Your task to perform on an android device: What is the recent news? Image 0: 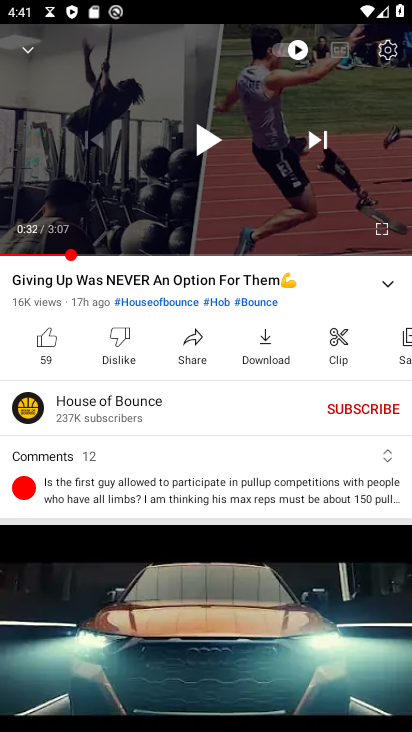
Step 0: press home button
Your task to perform on an android device: What is the recent news? Image 1: 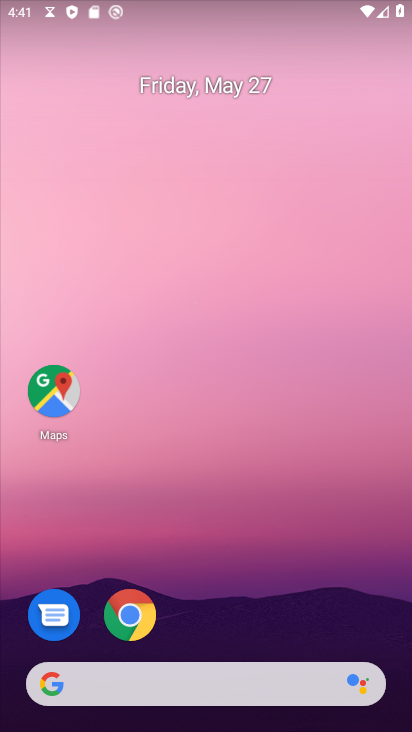
Step 1: drag from (239, 529) to (159, 4)
Your task to perform on an android device: What is the recent news? Image 2: 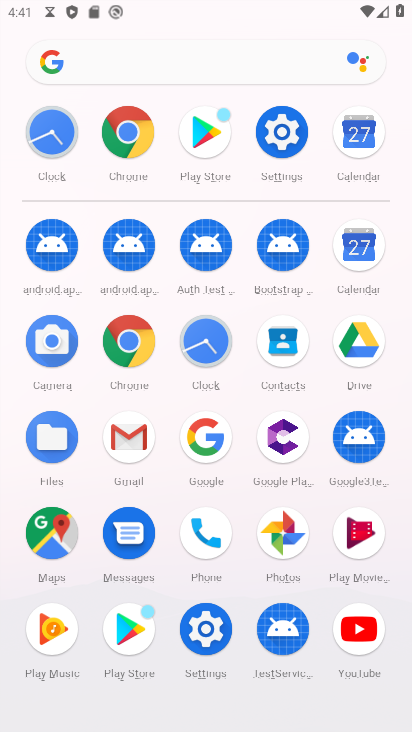
Step 2: click (202, 432)
Your task to perform on an android device: What is the recent news? Image 3: 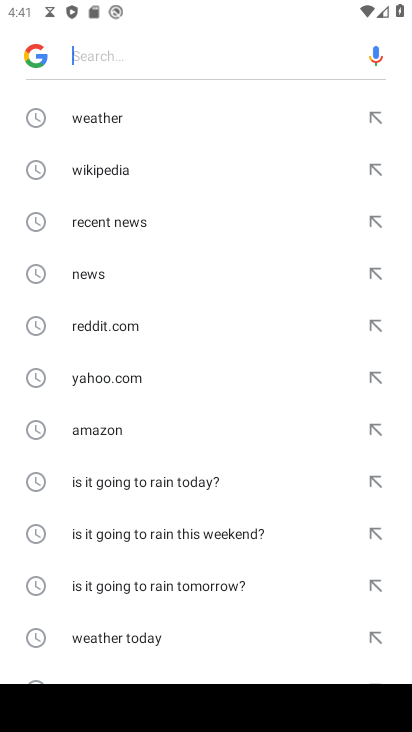
Step 3: click (137, 215)
Your task to perform on an android device: What is the recent news? Image 4: 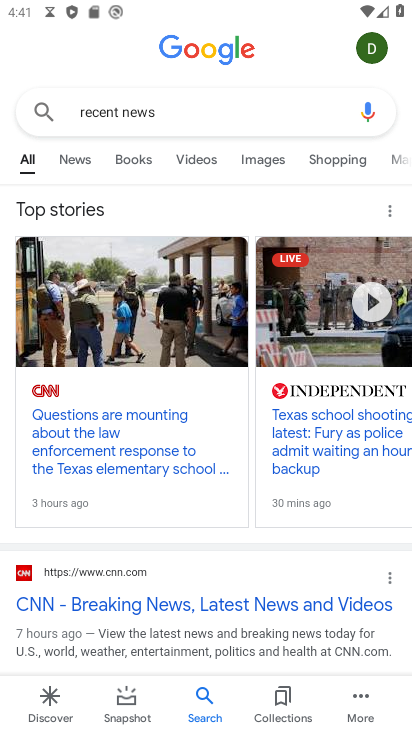
Step 4: task complete